Your task to perform on an android device: stop showing notifications on the lock screen Image 0: 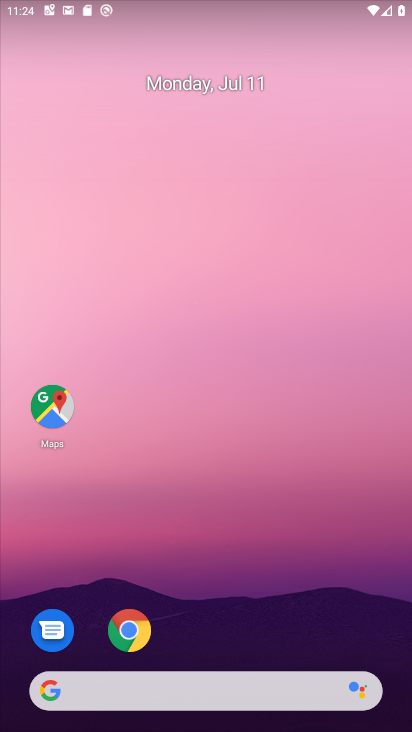
Step 0: drag from (167, 659) to (151, 181)
Your task to perform on an android device: stop showing notifications on the lock screen Image 1: 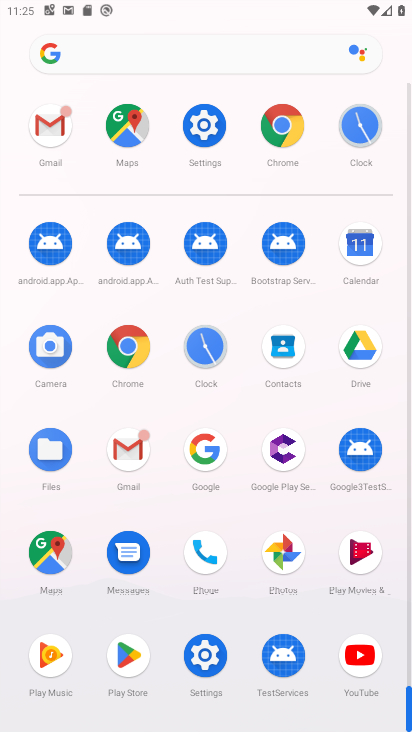
Step 1: click (210, 152)
Your task to perform on an android device: stop showing notifications on the lock screen Image 2: 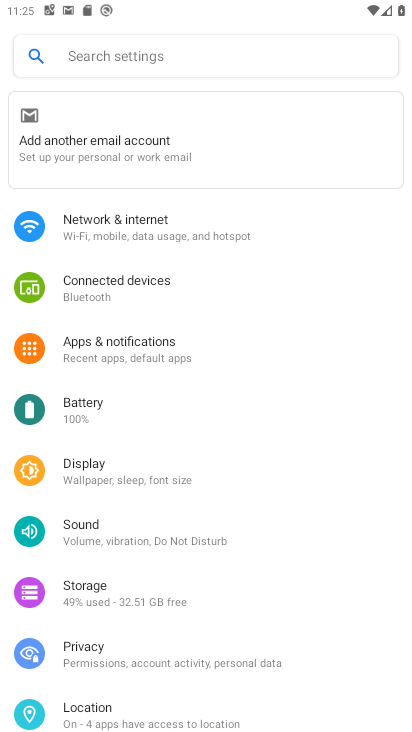
Step 2: drag from (118, 554) to (155, 318)
Your task to perform on an android device: stop showing notifications on the lock screen Image 3: 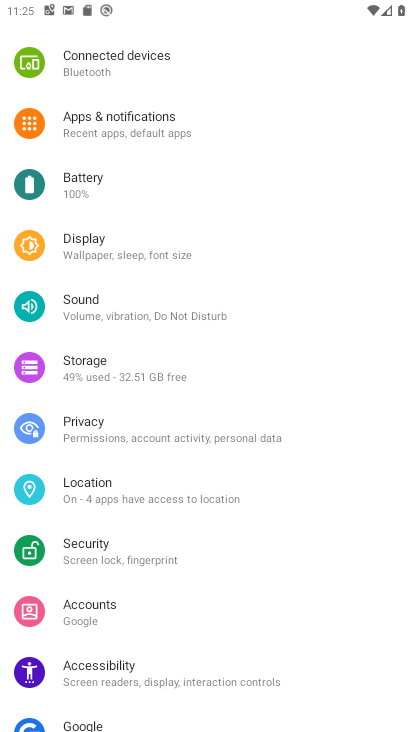
Step 3: click (144, 141)
Your task to perform on an android device: stop showing notifications on the lock screen Image 4: 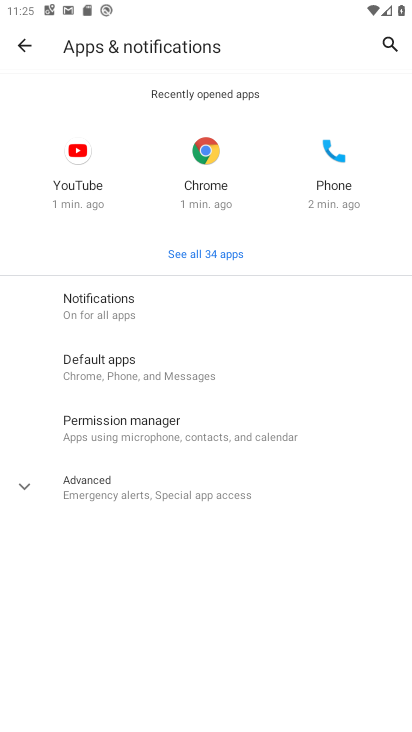
Step 4: click (155, 310)
Your task to perform on an android device: stop showing notifications on the lock screen Image 5: 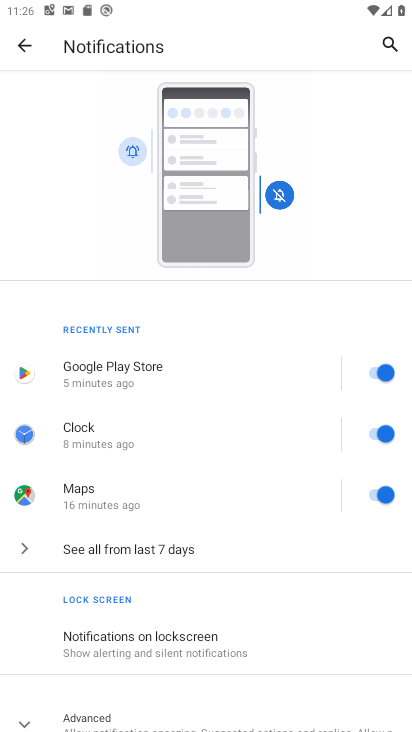
Step 5: click (175, 643)
Your task to perform on an android device: stop showing notifications on the lock screen Image 6: 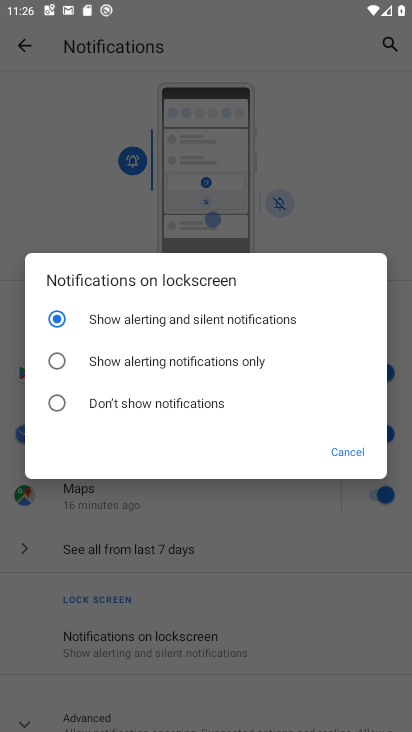
Step 6: click (81, 409)
Your task to perform on an android device: stop showing notifications on the lock screen Image 7: 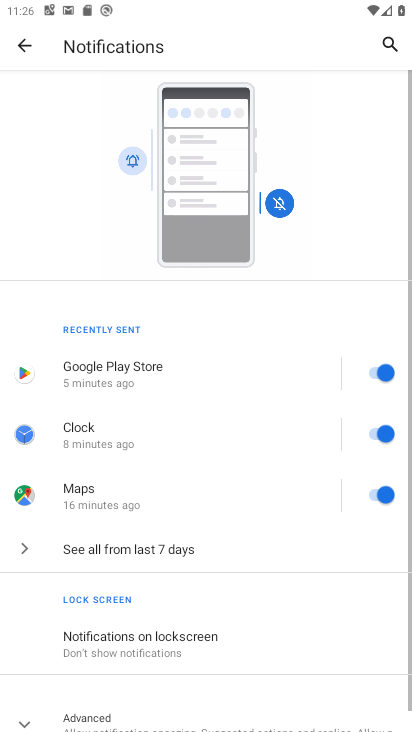
Step 7: task complete